Your task to perform on an android device: turn off notifications in google photos Image 0: 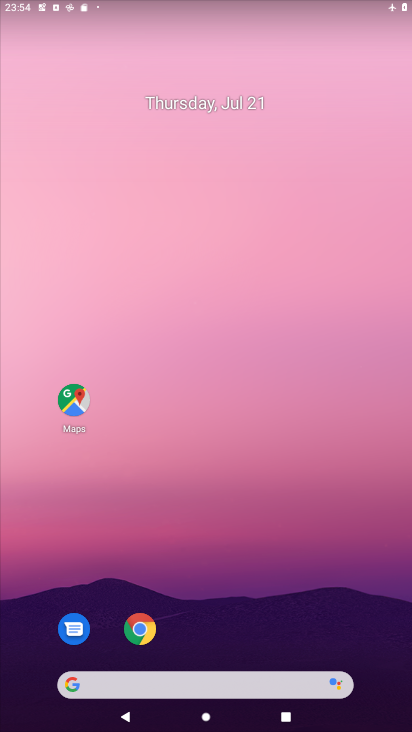
Step 0: drag from (229, 629) to (230, 159)
Your task to perform on an android device: turn off notifications in google photos Image 1: 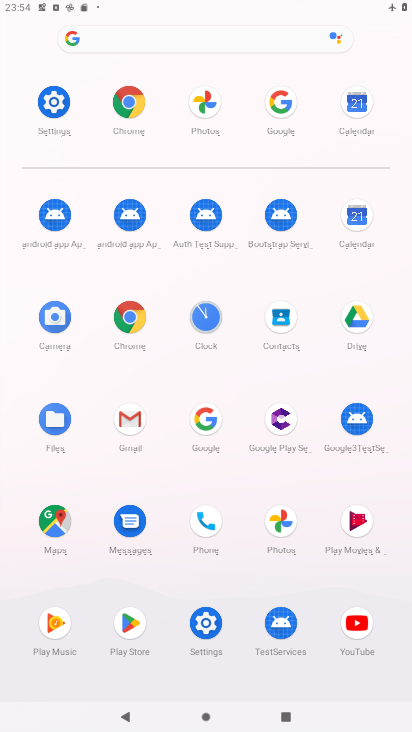
Step 1: click (280, 520)
Your task to perform on an android device: turn off notifications in google photos Image 2: 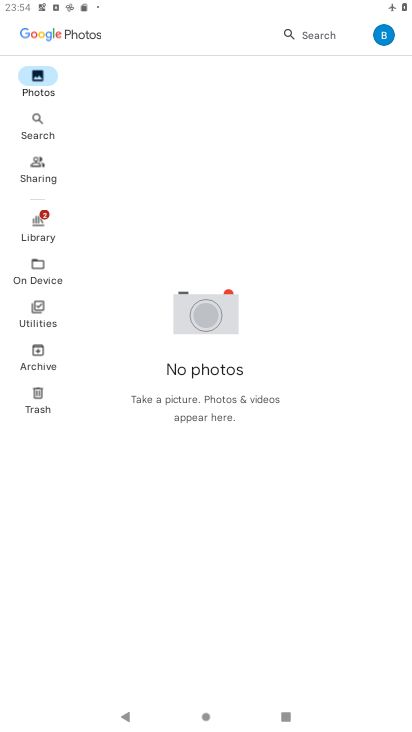
Step 2: click (388, 32)
Your task to perform on an android device: turn off notifications in google photos Image 3: 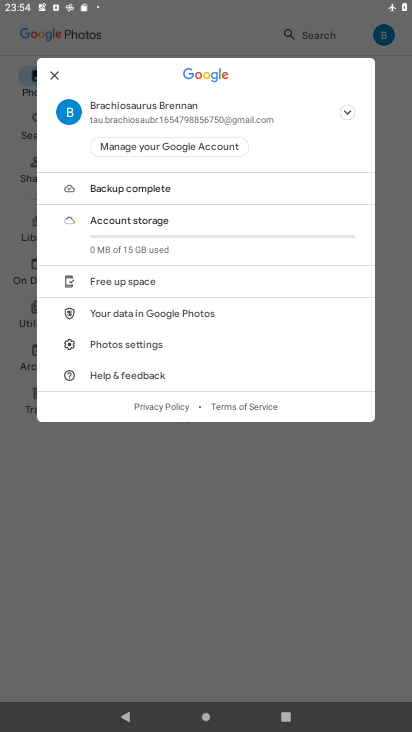
Step 3: click (145, 331)
Your task to perform on an android device: turn off notifications in google photos Image 4: 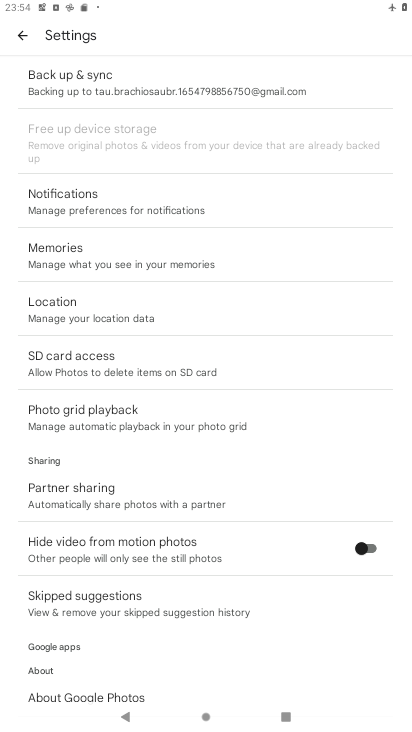
Step 4: click (147, 234)
Your task to perform on an android device: turn off notifications in google photos Image 5: 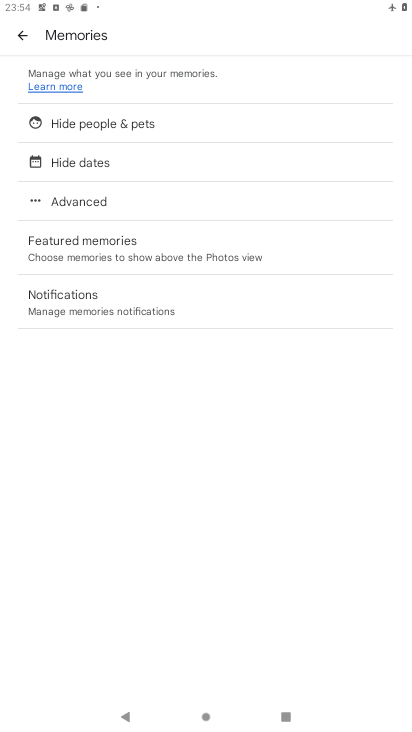
Step 5: press back button
Your task to perform on an android device: turn off notifications in google photos Image 6: 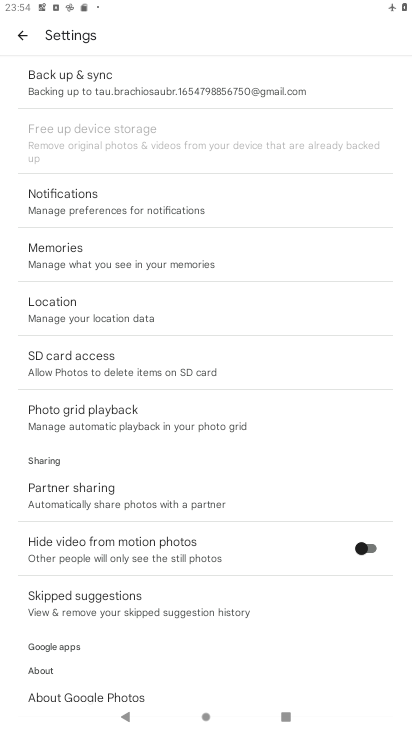
Step 6: click (100, 202)
Your task to perform on an android device: turn off notifications in google photos Image 7: 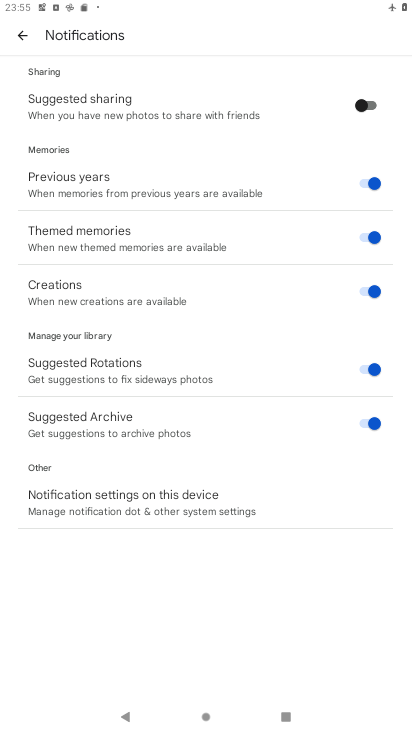
Step 7: click (186, 514)
Your task to perform on an android device: turn off notifications in google photos Image 8: 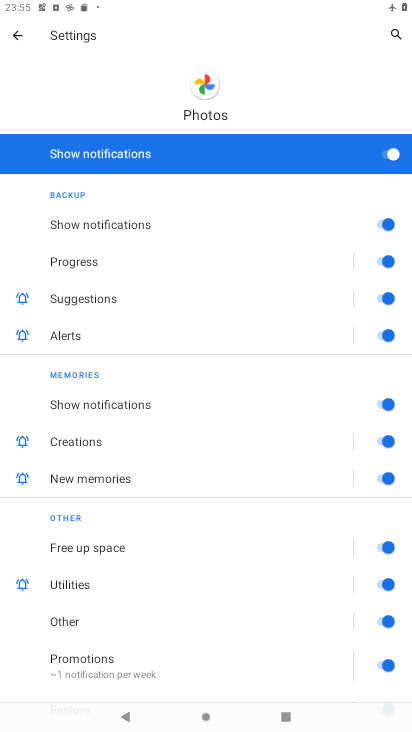
Step 8: click (398, 158)
Your task to perform on an android device: turn off notifications in google photos Image 9: 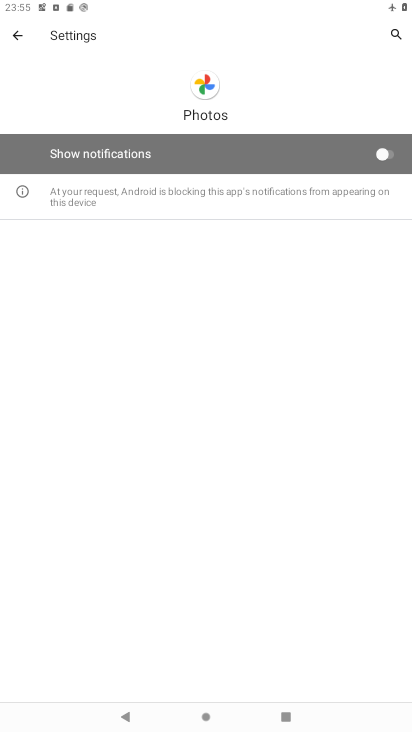
Step 9: task complete